Your task to perform on an android device: Find coffee shops on Maps Image 0: 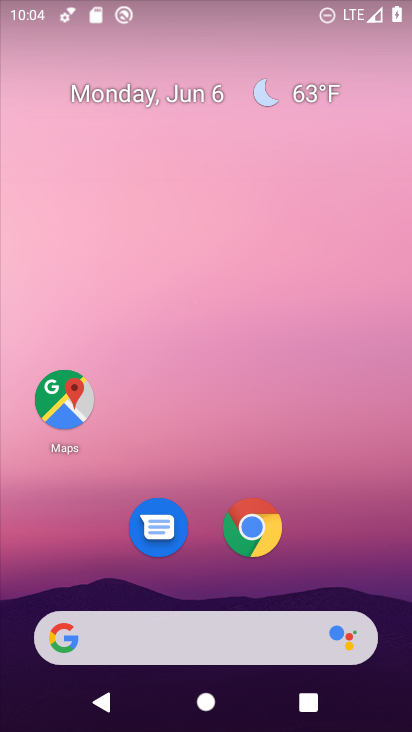
Step 0: drag from (380, 583) to (361, 182)
Your task to perform on an android device: Find coffee shops on Maps Image 1: 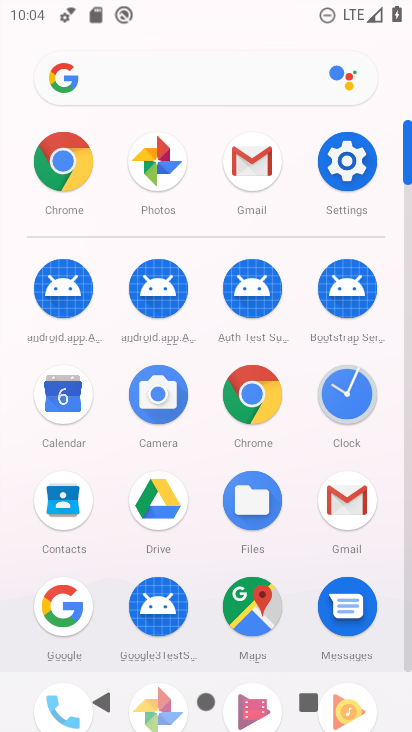
Step 1: click (249, 609)
Your task to perform on an android device: Find coffee shops on Maps Image 2: 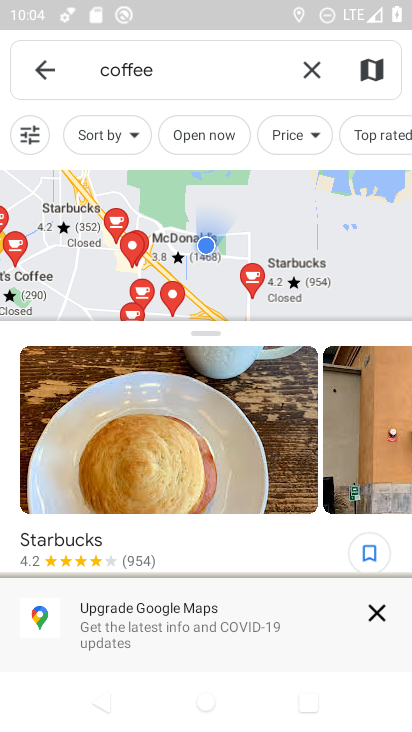
Step 2: task complete